Your task to perform on an android device: turn on sleep mode Image 0: 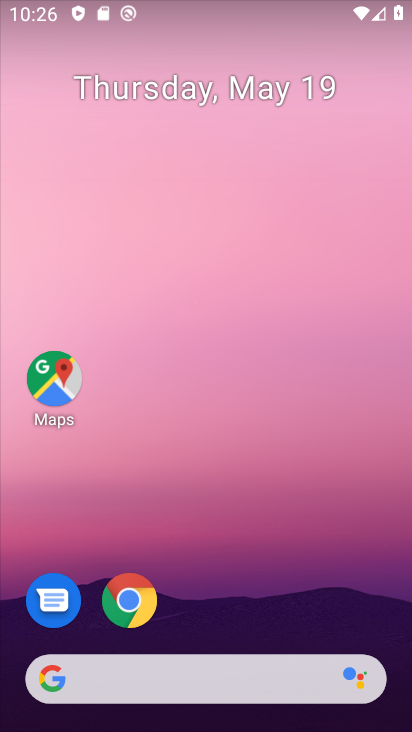
Step 0: drag from (270, 590) to (272, 212)
Your task to perform on an android device: turn on sleep mode Image 1: 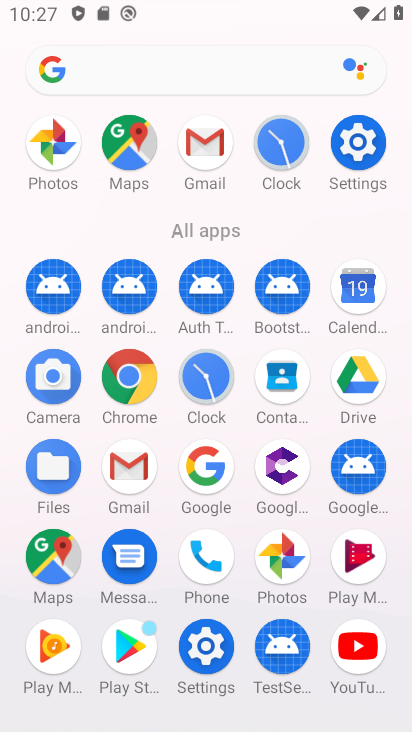
Step 1: click (215, 652)
Your task to perform on an android device: turn on sleep mode Image 2: 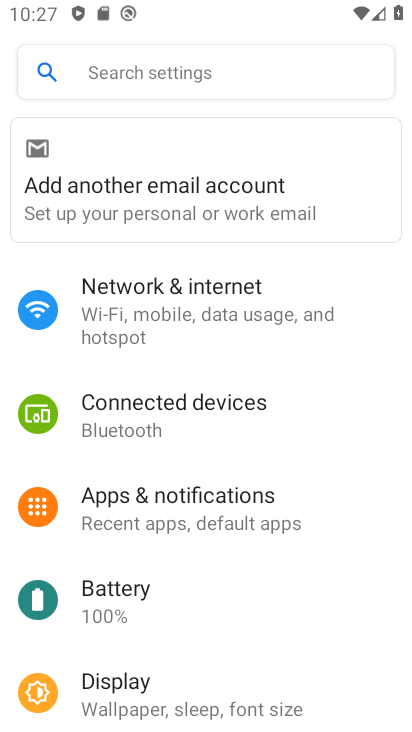
Step 2: drag from (197, 616) to (178, 286)
Your task to perform on an android device: turn on sleep mode Image 3: 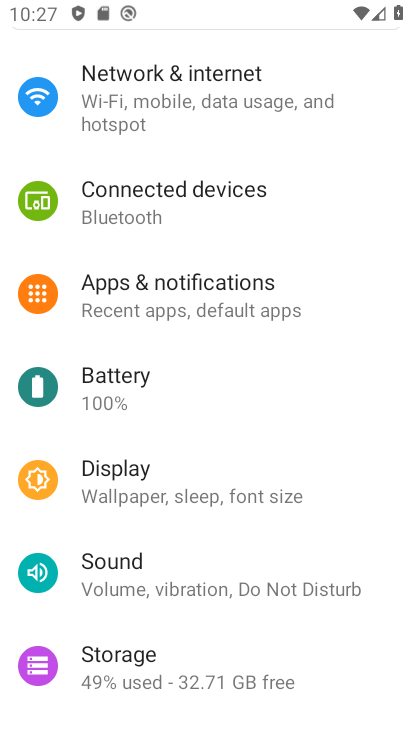
Step 3: click (185, 474)
Your task to perform on an android device: turn on sleep mode Image 4: 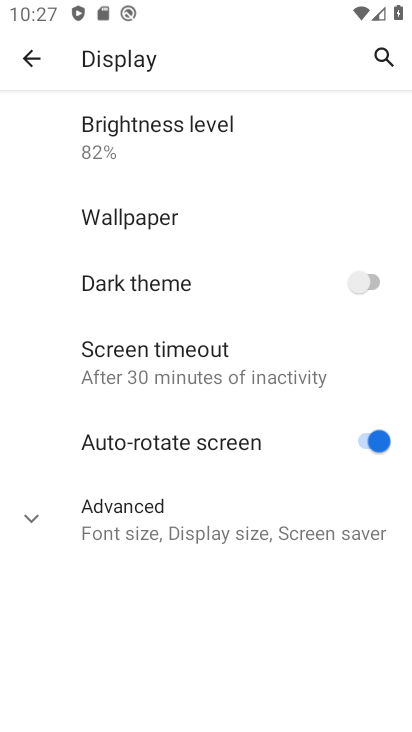
Step 4: task complete